Your task to perform on an android device: Open Google Chrome Image 0: 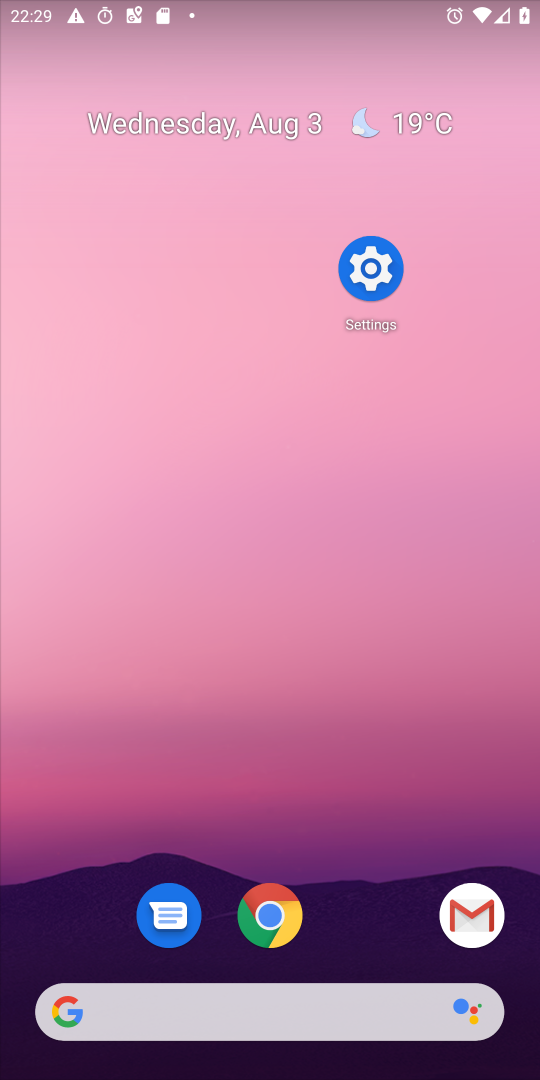
Step 0: press home button
Your task to perform on an android device: Open Google Chrome Image 1: 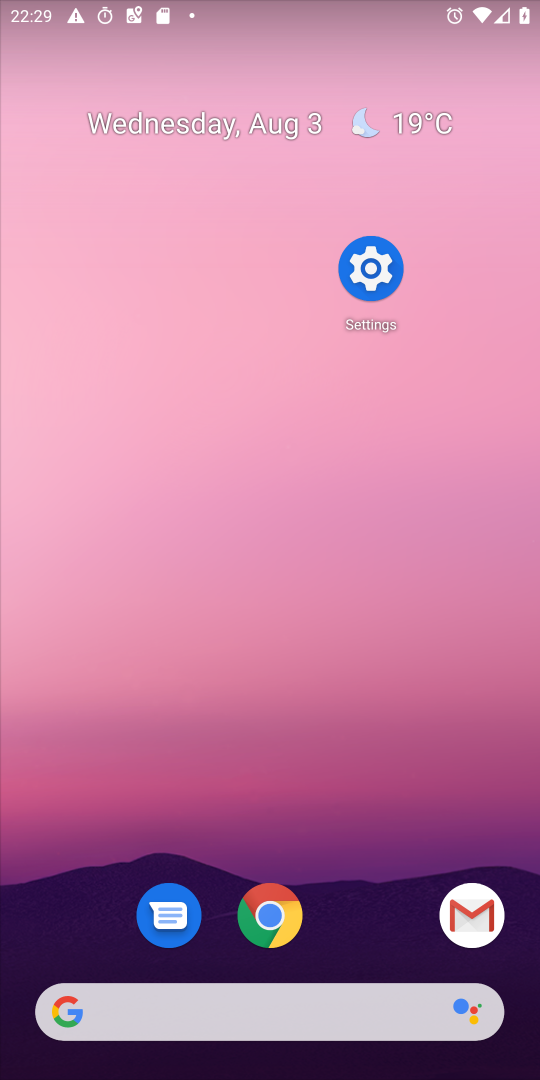
Step 1: drag from (377, 1039) to (216, 342)
Your task to perform on an android device: Open Google Chrome Image 2: 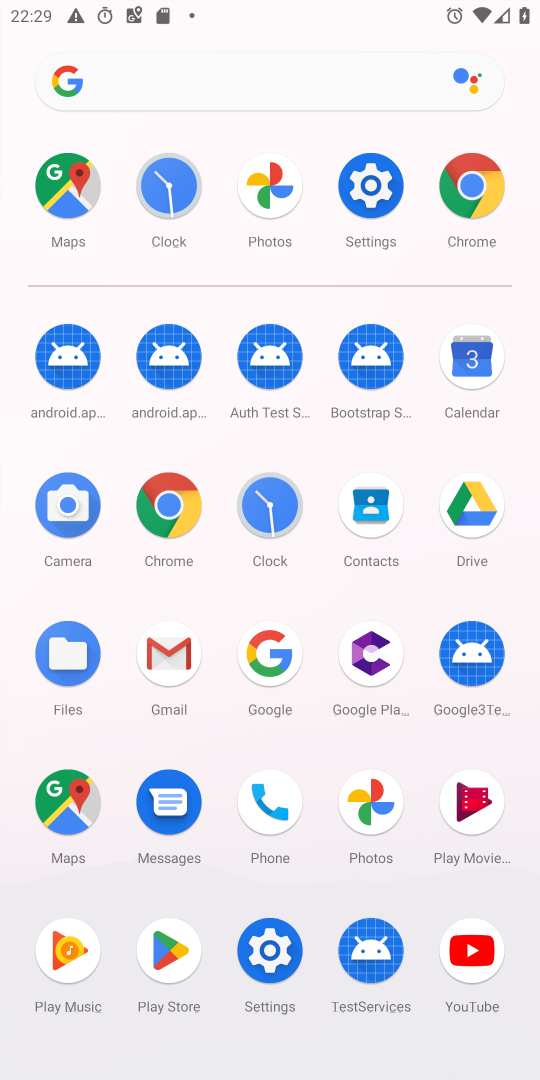
Step 2: click (453, 191)
Your task to perform on an android device: Open Google Chrome Image 3: 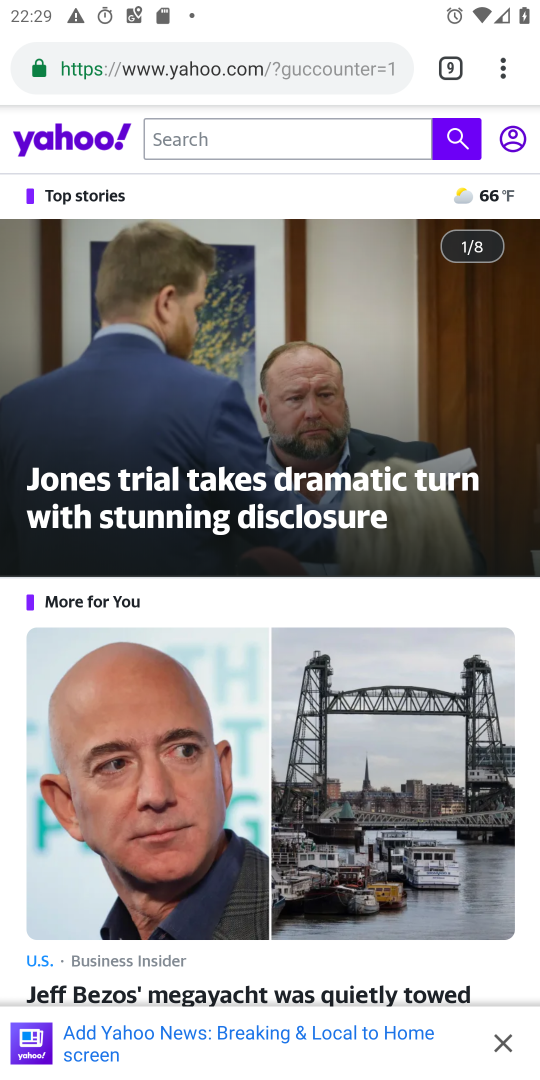
Step 3: click (445, 65)
Your task to perform on an android device: Open Google Chrome Image 4: 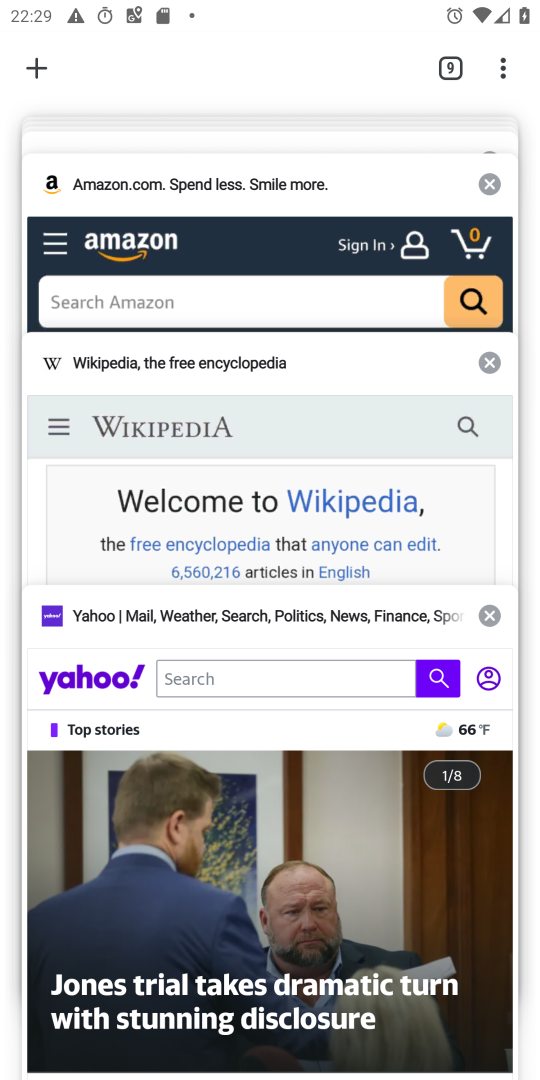
Step 4: click (37, 71)
Your task to perform on an android device: Open Google Chrome Image 5: 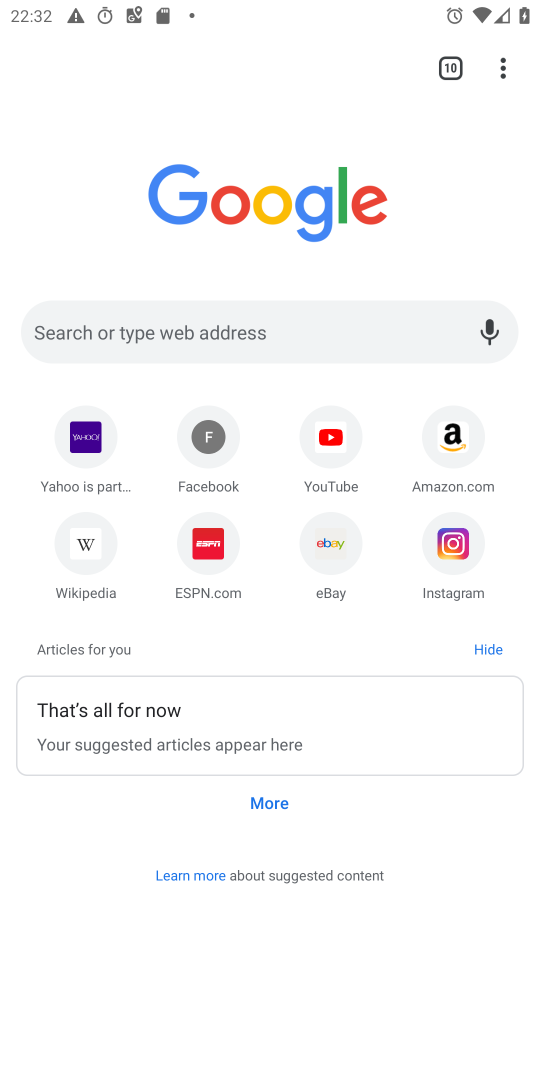
Step 5: task complete